Your task to perform on an android device: Open sound settings Image 0: 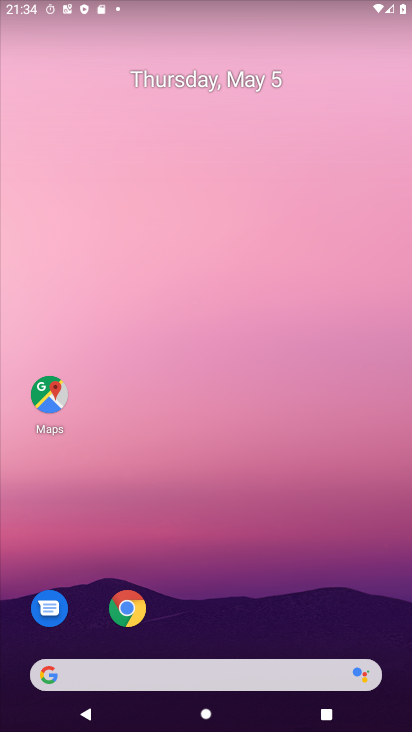
Step 0: drag from (311, 601) to (305, 2)
Your task to perform on an android device: Open sound settings Image 1: 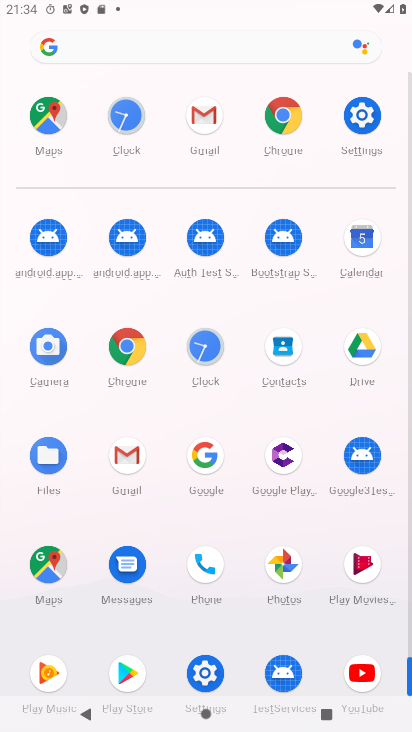
Step 1: click (361, 115)
Your task to perform on an android device: Open sound settings Image 2: 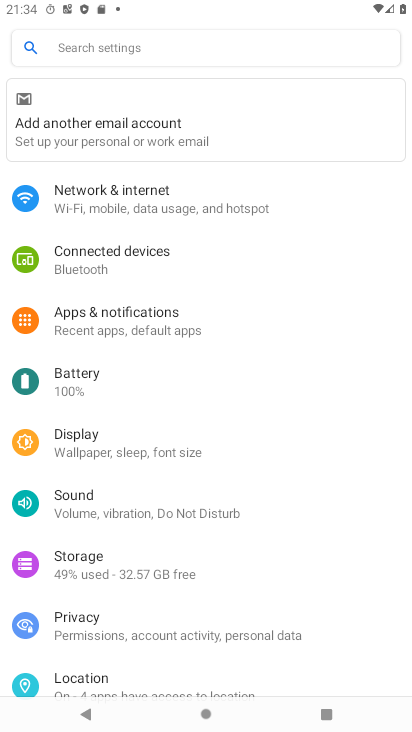
Step 2: click (176, 508)
Your task to perform on an android device: Open sound settings Image 3: 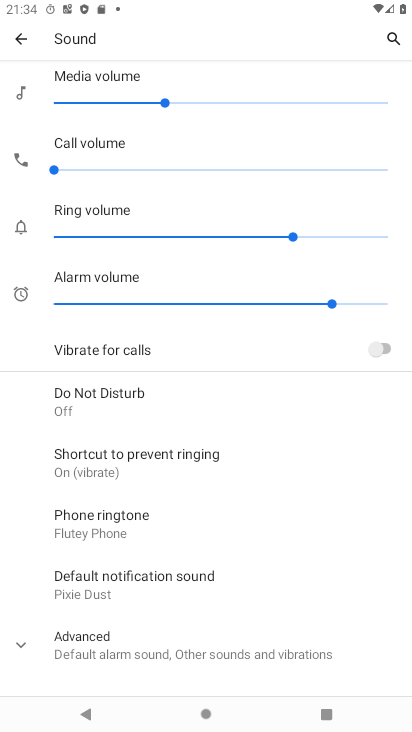
Step 3: task complete